Your task to perform on an android device: open wifi settings Image 0: 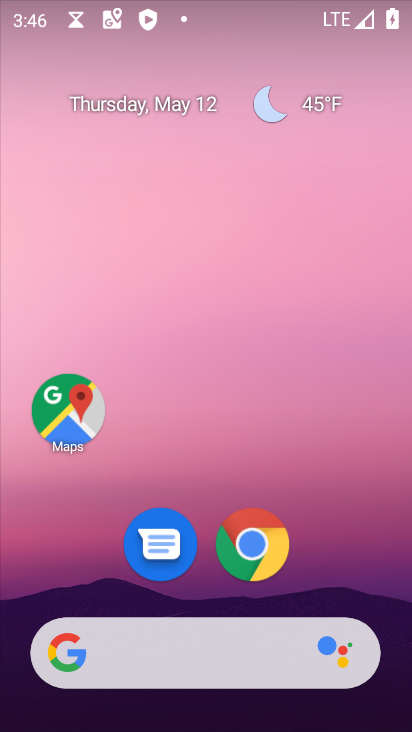
Step 0: drag from (327, 562) to (325, 126)
Your task to perform on an android device: open wifi settings Image 1: 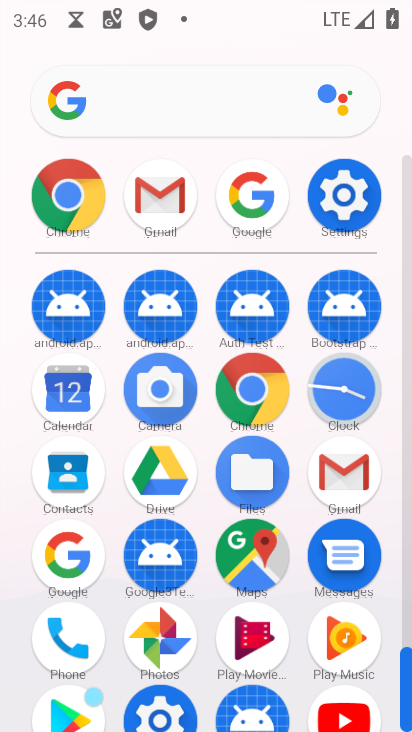
Step 1: click (348, 185)
Your task to perform on an android device: open wifi settings Image 2: 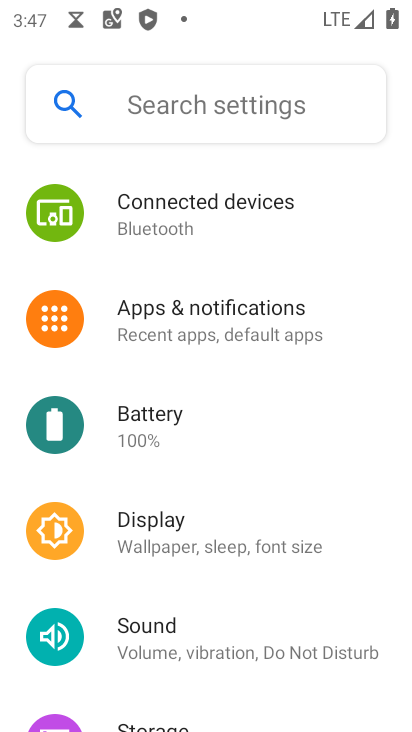
Step 2: drag from (289, 207) to (390, 636)
Your task to perform on an android device: open wifi settings Image 3: 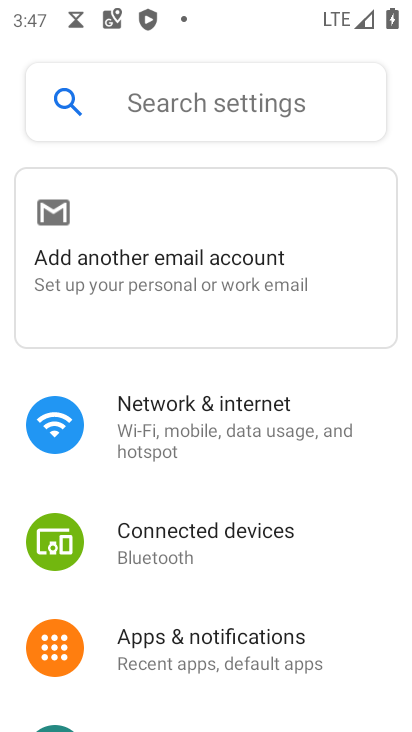
Step 3: click (285, 413)
Your task to perform on an android device: open wifi settings Image 4: 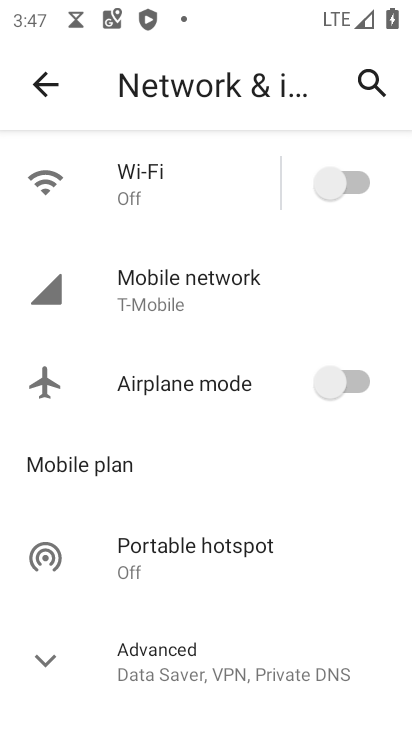
Step 4: click (197, 181)
Your task to perform on an android device: open wifi settings Image 5: 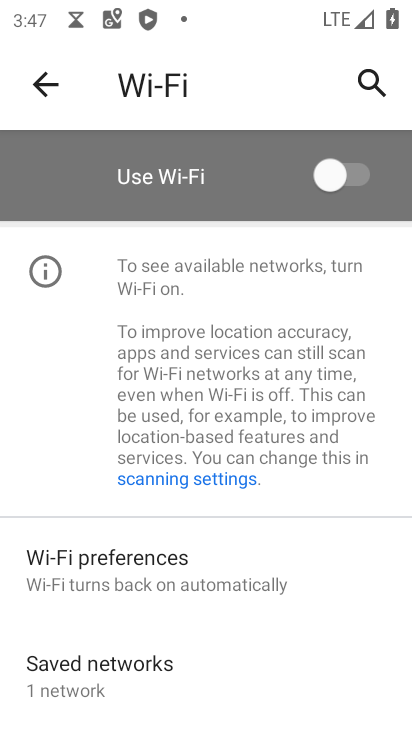
Step 5: task complete